Your task to perform on an android device: When is my next appointment? Image 0: 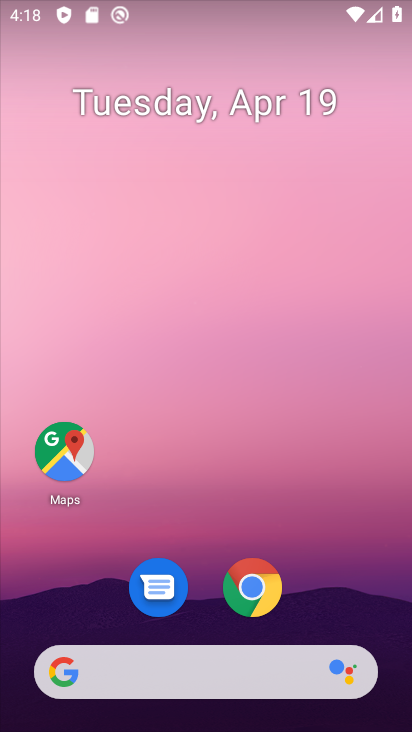
Step 0: drag from (318, 508) to (269, 19)
Your task to perform on an android device: When is my next appointment? Image 1: 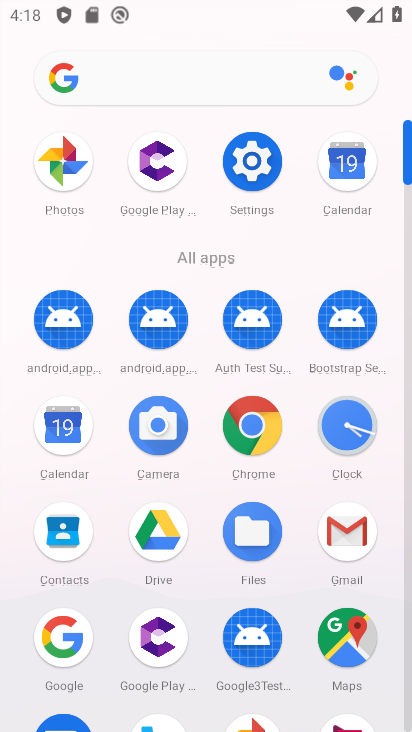
Step 1: drag from (3, 560) to (8, 224)
Your task to perform on an android device: When is my next appointment? Image 2: 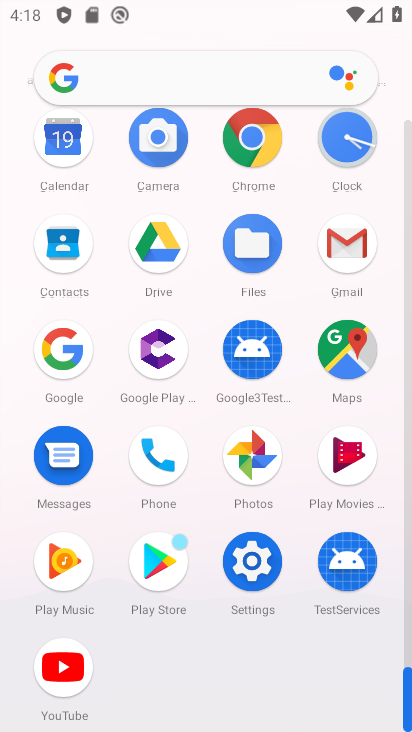
Step 2: click (62, 150)
Your task to perform on an android device: When is my next appointment? Image 3: 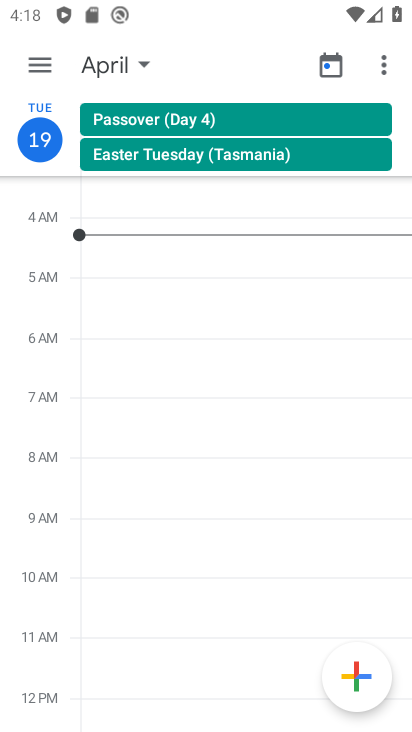
Step 3: drag from (213, 514) to (193, 351)
Your task to perform on an android device: When is my next appointment? Image 4: 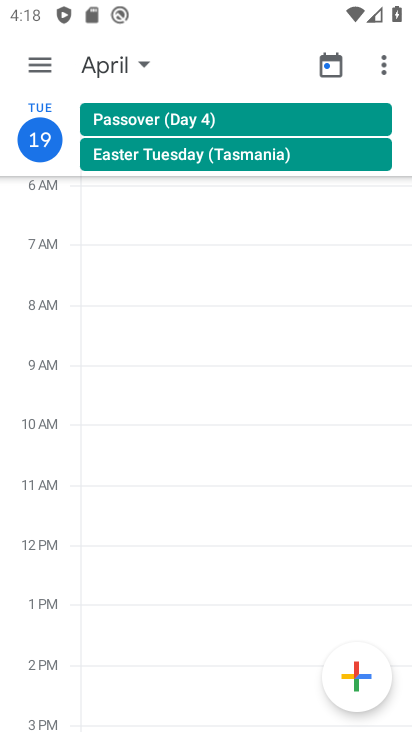
Step 4: click (45, 62)
Your task to perform on an android device: When is my next appointment? Image 5: 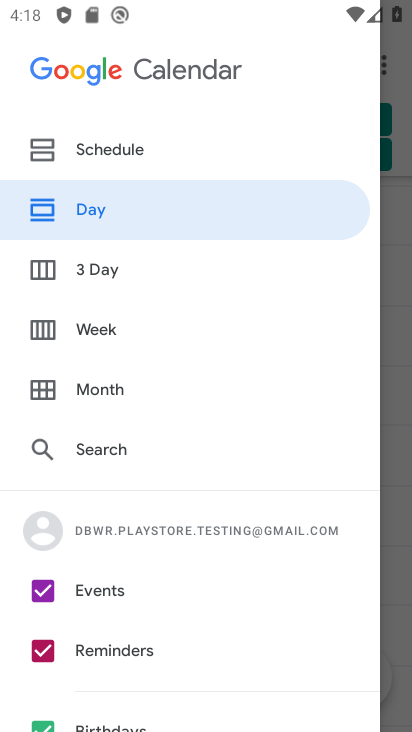
Step 5: drag from (162, 630) to (184, 334)
Your task to perform on an android device: When is my next appointment? Image 6: 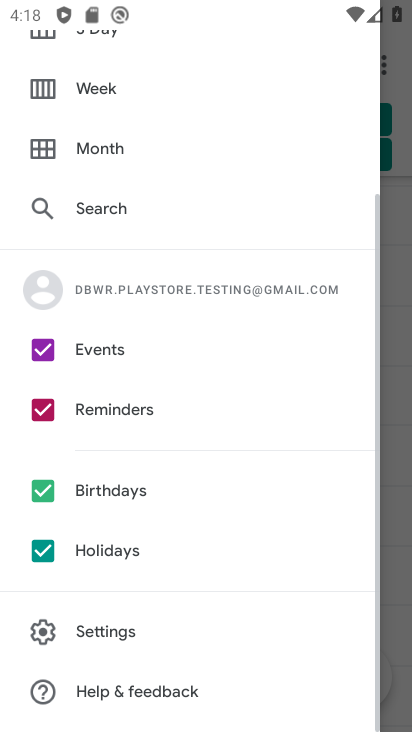
Step 6: click (42, 548)
Your task to perform on an android device: When is my next appointment? Image 7: 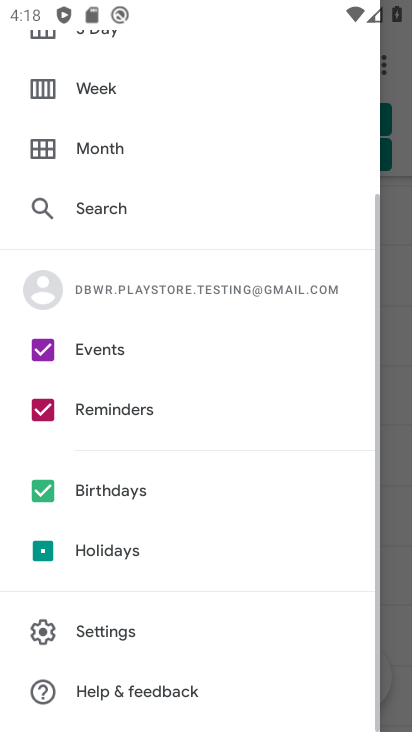
Step 7: click (42, 482)
Your task to perform on an android device: When is my next appointment? Image 8: 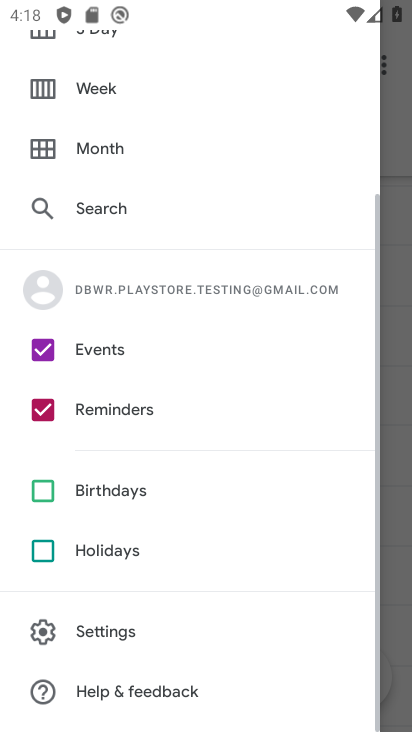
Step 8: click (39, 344)
Your task to perform on an android device: When is my next appointment? Image 9: 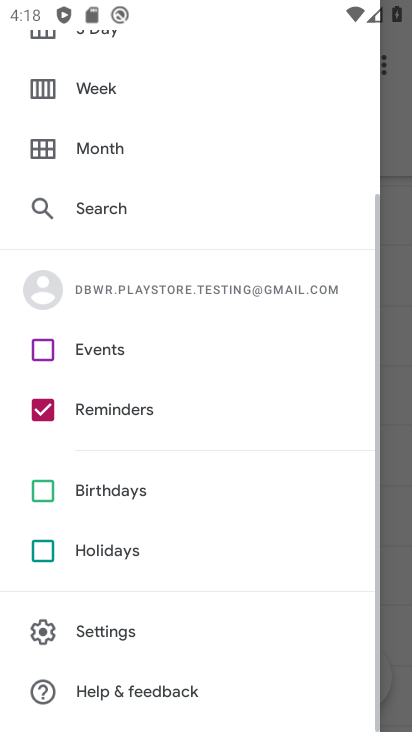
Step 9: drag from (151, 232) to (212, 627)
Your task to perform on an android device: When is my next appointment? Image 10: 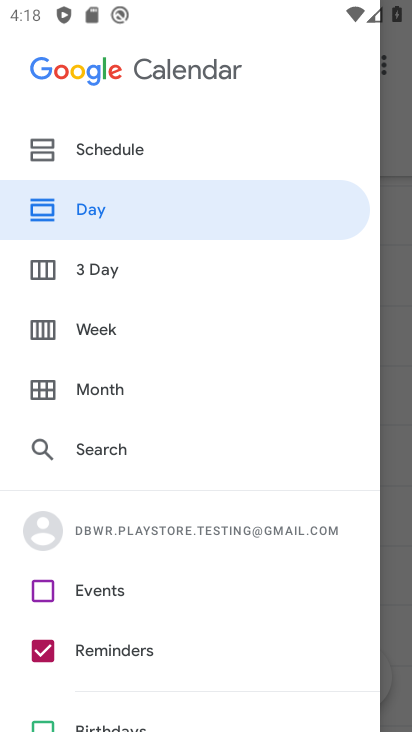
Step 10: click (129, 146)
Your task to perform on an android device: When is my next appointment? Image 11: 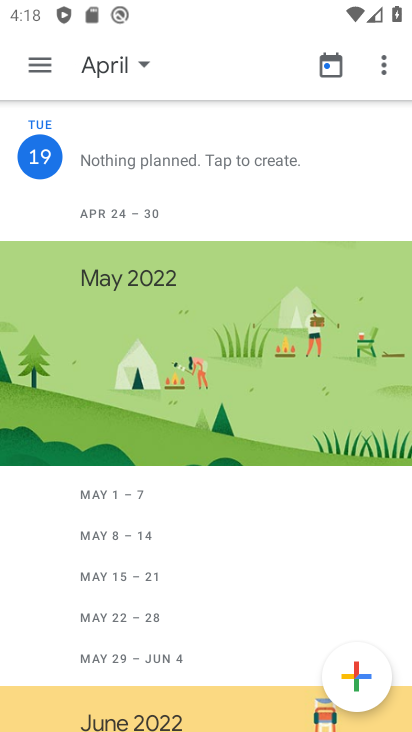
Step 11: task complete